Your task to perform on an android device: remove spam from my inbox in the gmail app Image 0: 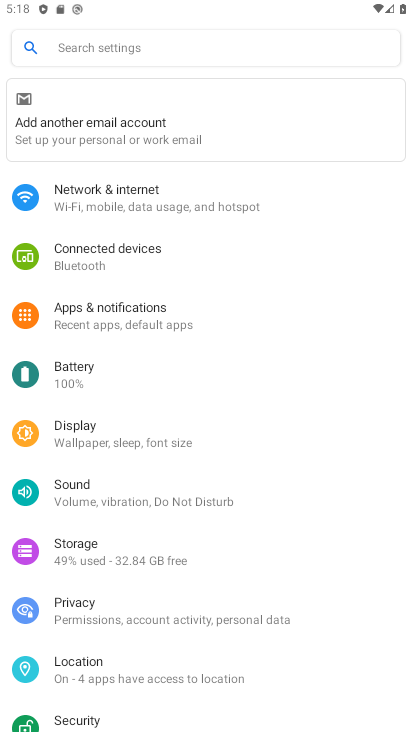
Step 0: press home button
Your task to perform on an android device: remove spam from my inbox in the gmail app Image 1: 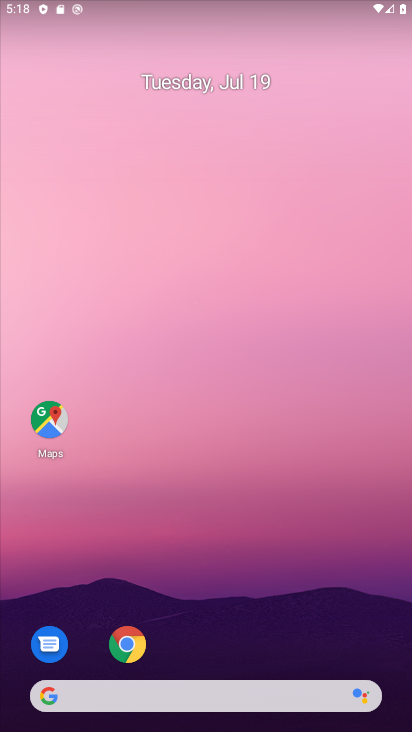
Step 1: drag from (264, 634) to (182, 276)
Your task to perform on an android device: remove spam from my inbox in the gmail app Image 2: 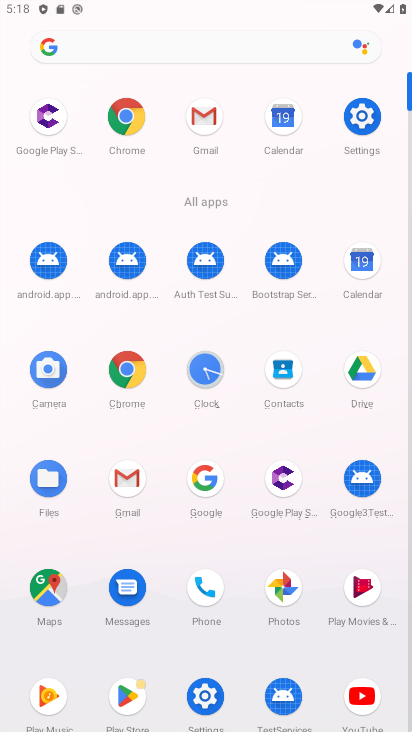
Step 2: click (125, 484)
Your task to perform on an android device: remove spam from my inbox in the gmail app Image 3: 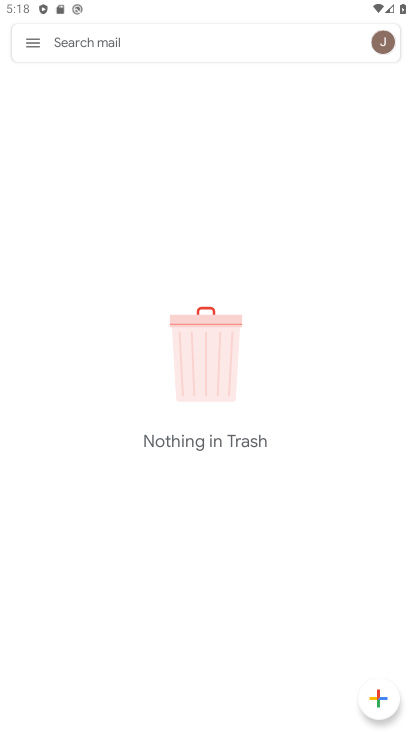
Step 3: click (33, 42)
Your task to perform on an android device: remove spam from my inbox in the gmail app Image 4: 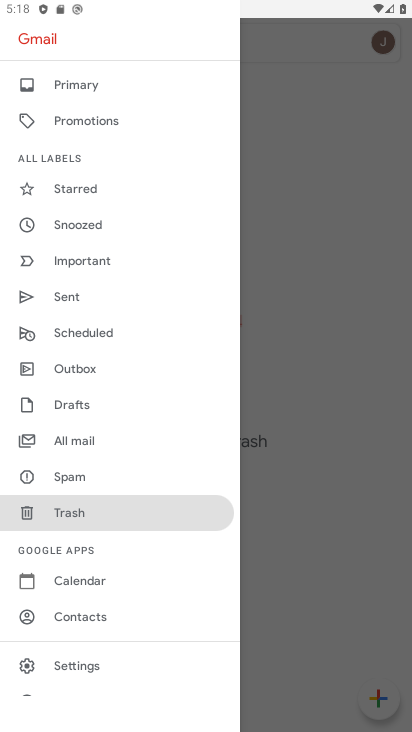
Step 4: click (78, 476)
Your task to perform on an android device: remove spam from my inbox in the gmail app Image 5: 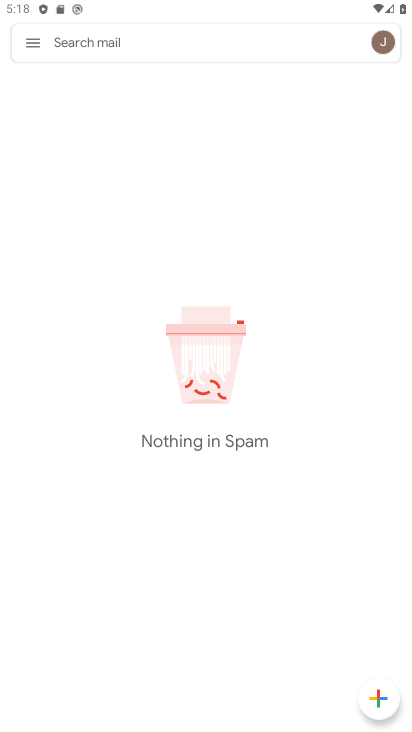
Step 5: task complete